Your task to perform on an android device: Show me popular games on the Play Store Image 0: 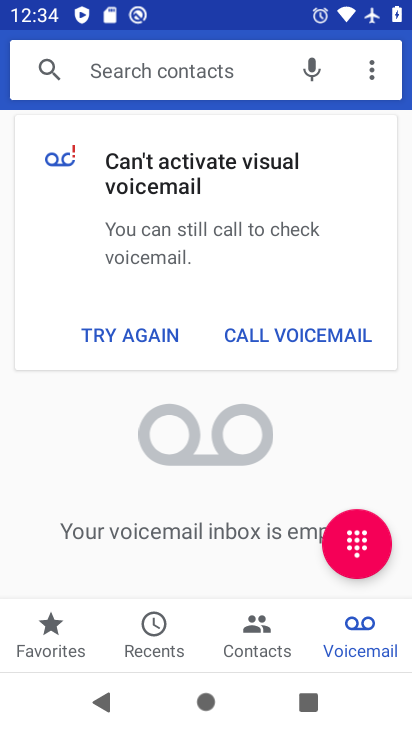
Step 0: press home button
Your task to perform on an android device: Show me popular games on the Play Store Image 1: 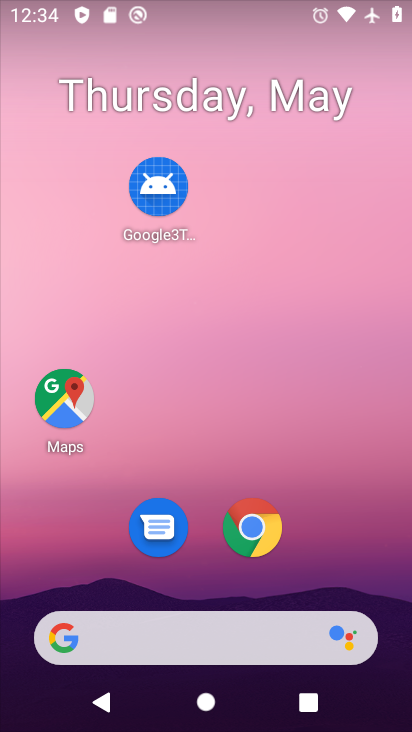
Step 1: drag from (203, 588) to (258, 167)
Your task to perform on an android device: Show me popular games on the Play Store Image 2: 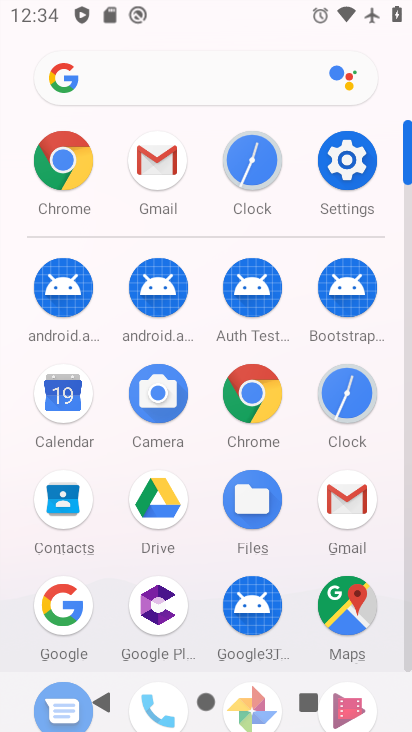
Step 2: drag from (199, 632) to (191, 165)
Your task to perform on an android device: Show me popular games on the Play Store Image 3: 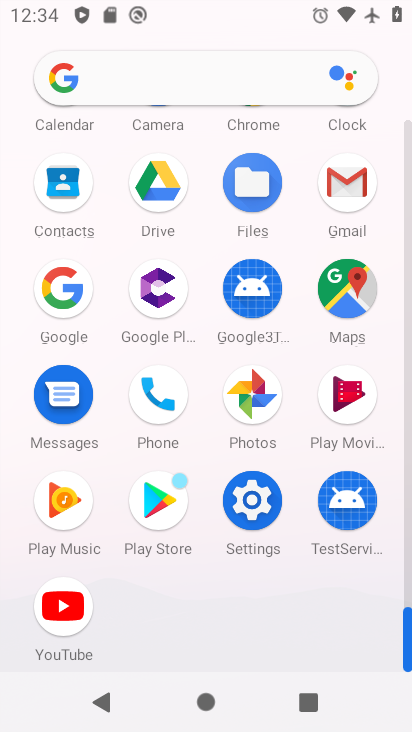
Step 3: click (154, 491)
Your task to perform on an android device: Show me popular games on the Play Store Image 4: 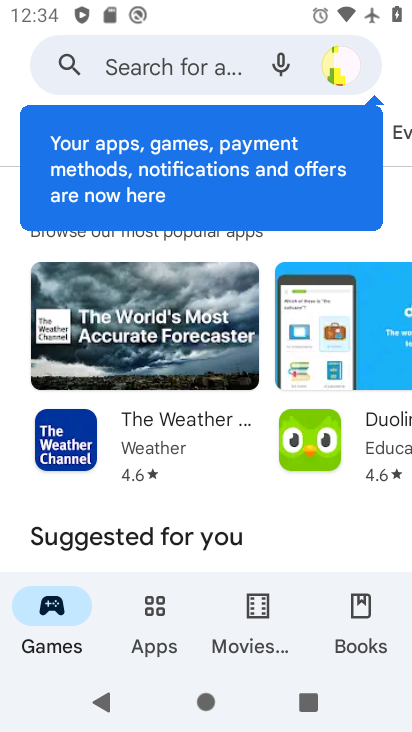
Step 4: drag from (222, 540) to (282, 51)
Your task to perform on an android device: Show me popular games on the Play Store Image 5: 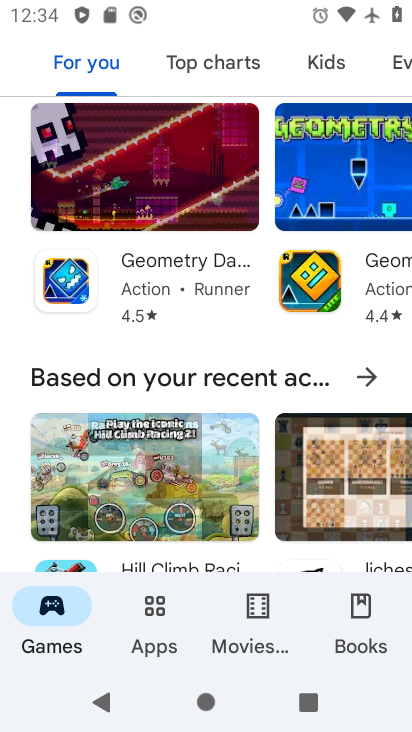
Step 5: drag from (242, 447) to (243, 64)
Your task to perform on an android device: Show me popular games on the Play Store Image 6: 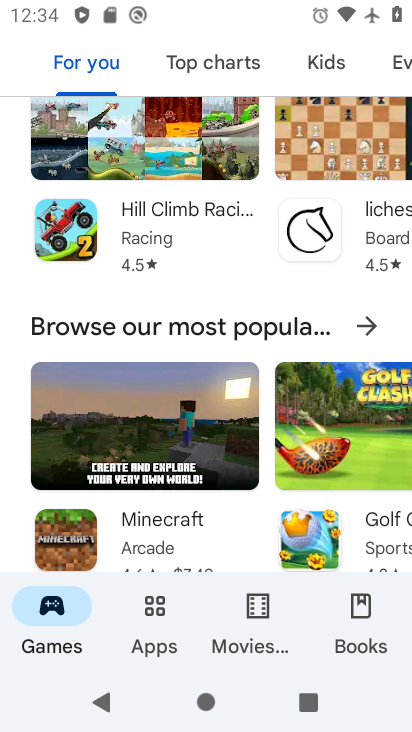
Step 6: click (356, 321)
Your task to perform on an android device: Show me popular games on the Play Store Image 7: 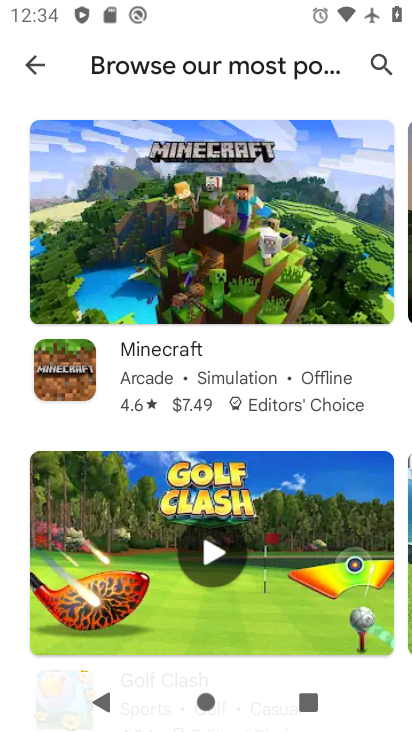
Step 7: task complete